Your task to perform on an android device: make emails show in primary in the gmail app Image 0: 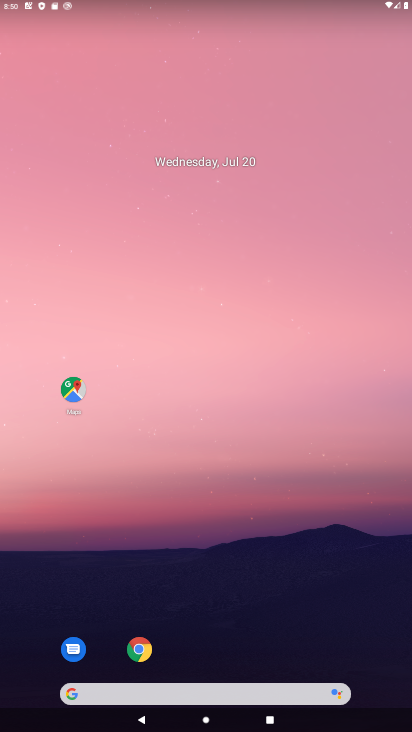
Step 0: drag from (181, 691) to (323, 31)
Your task to perform on an android device: make emails show in primary in the gmail app Image 1: 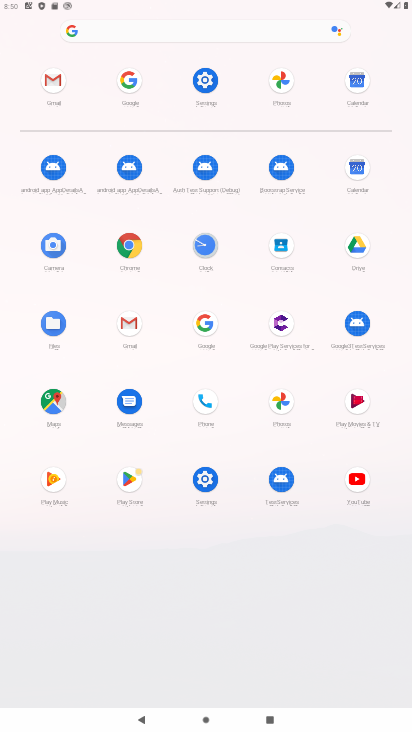
Step 1: click (52, 81)
Your task to perform on an android device: make emails show in primary in the gmail app Image 2: 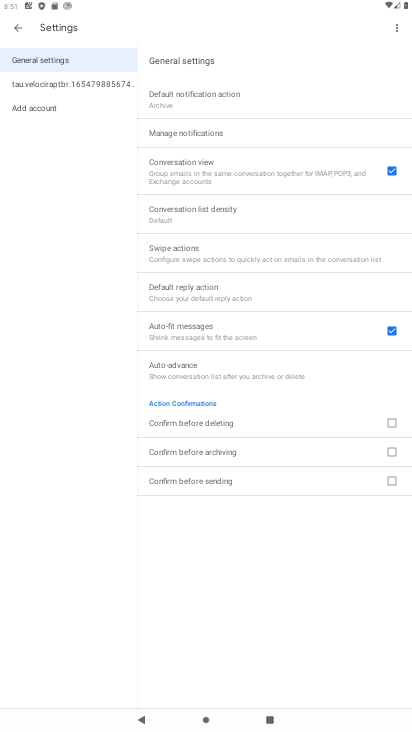
Step 2: click (62, 86)
Your task to perform on an android device: make emails show in primary in the gmail app Image 3: 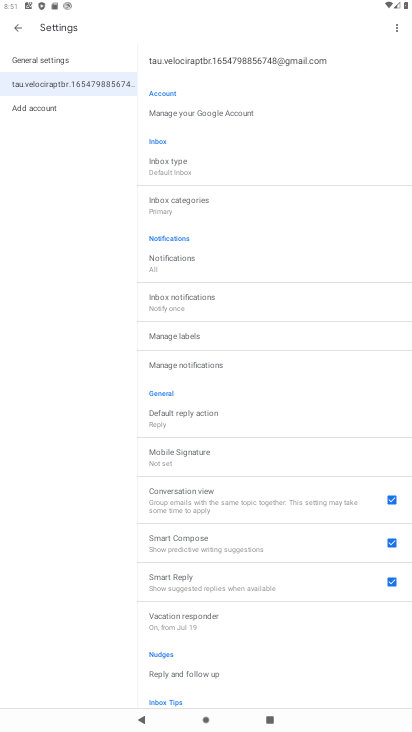
Step 3: task complete